Your task to perform on an android device: toggle notification dots Image 0: 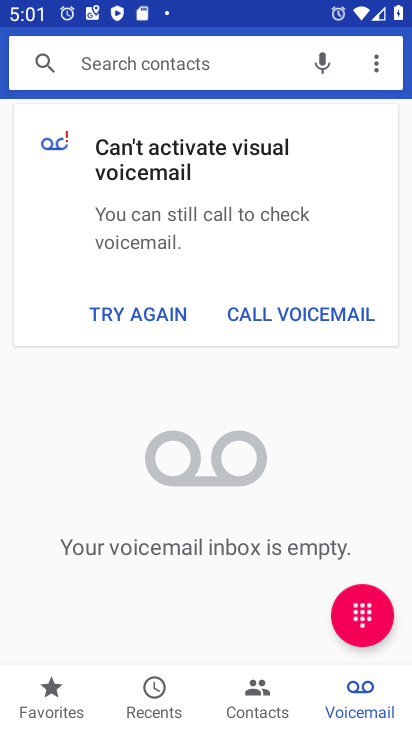
Step 0: press home button
Your task to perform on an android device: toggle notification dots Image 1: 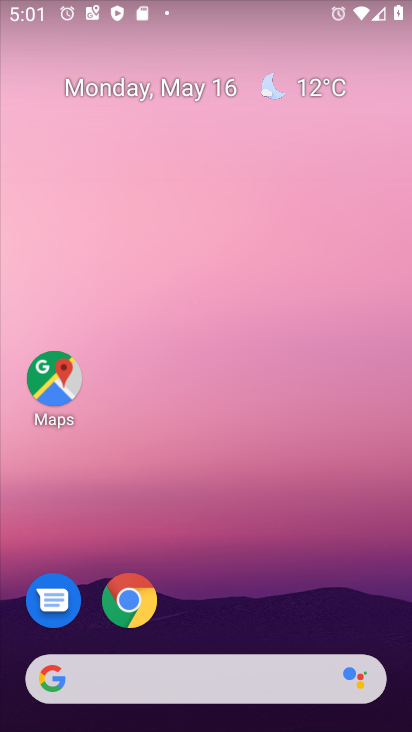
Step 1: click (280, 133)
Your task to perform on an android device: toggle notification dots Image 2: 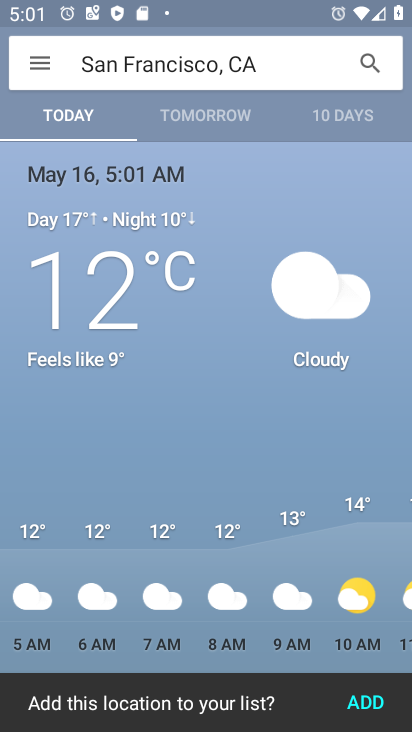
Step 2: press home button
Your task to perform on an android device: toggle notification dots Image 3: 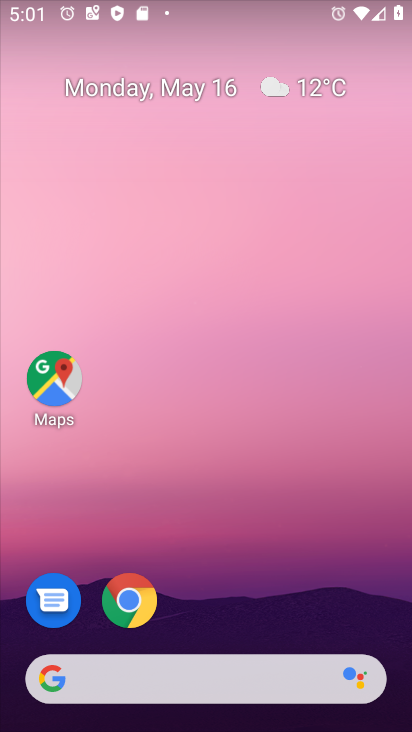
Step 3: drag from (150, 654) to (133, 63)
Your task to perform on an android device: toggle notification dots Image 4: 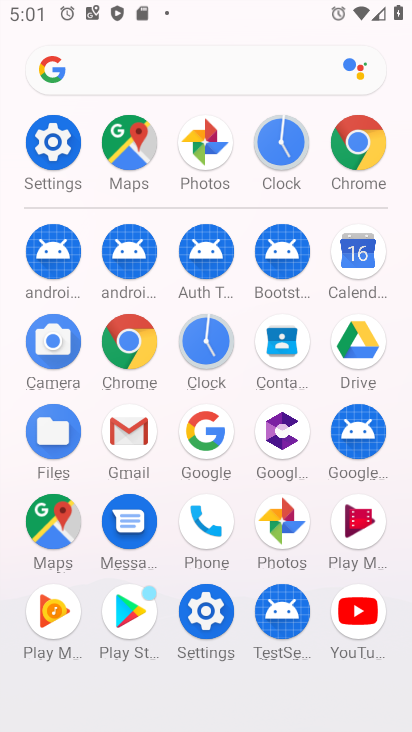
Step 4: click (49, 163)
Your task to perform on an android device: toggle notification dots Image 5: 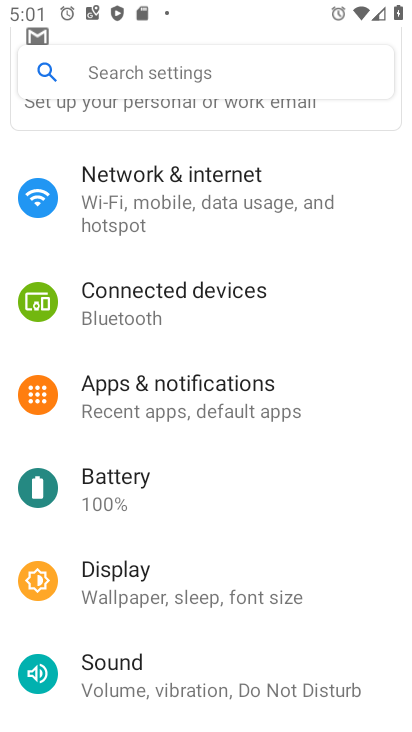
Step 5: click (189, 391)
Your task to perform on an android device: toggle notification dots Image 6: 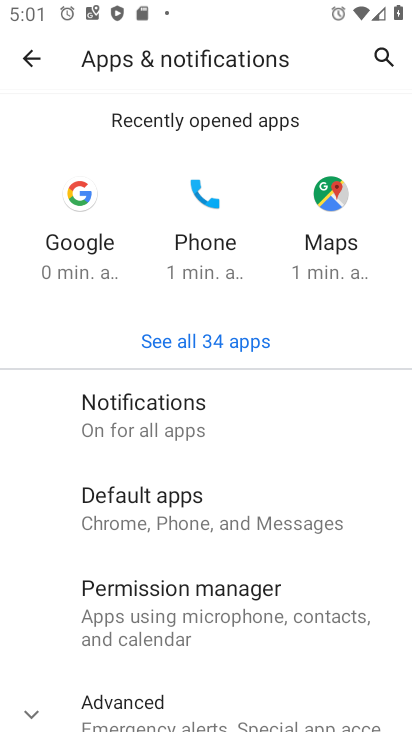
Step 6: click (166, 426)
Your task to perform on an android device: toggle notification dots Image 7: 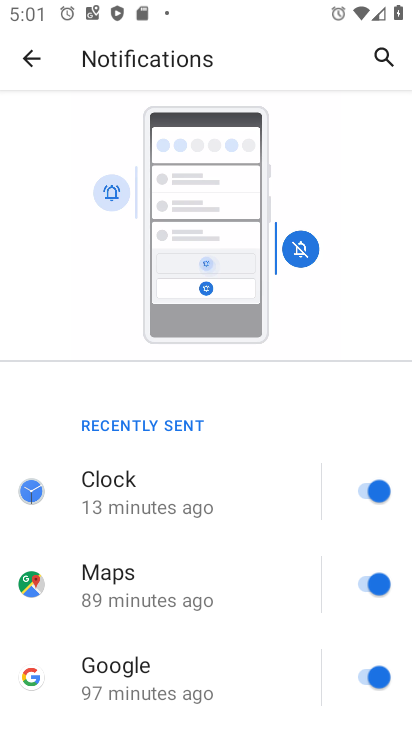
Step 7: drag from (188, 707) to (203, 220)
Your task to perform on an android device: toggle notification dots Image 8: 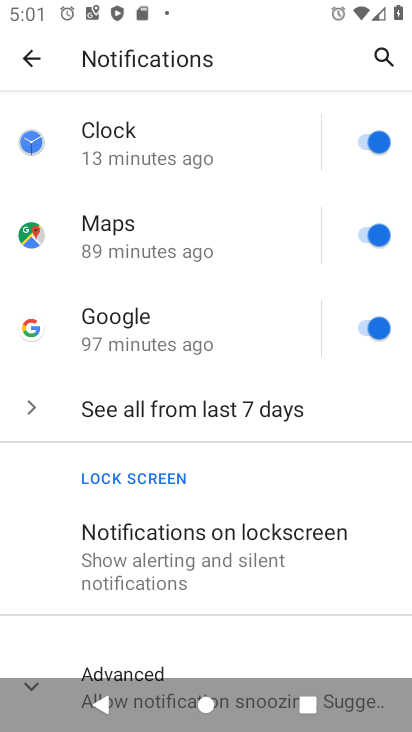
Step 8: drag from (208, 632) to (252, 272)
Your task to perform on an android device: toggle notification dots Image 9: 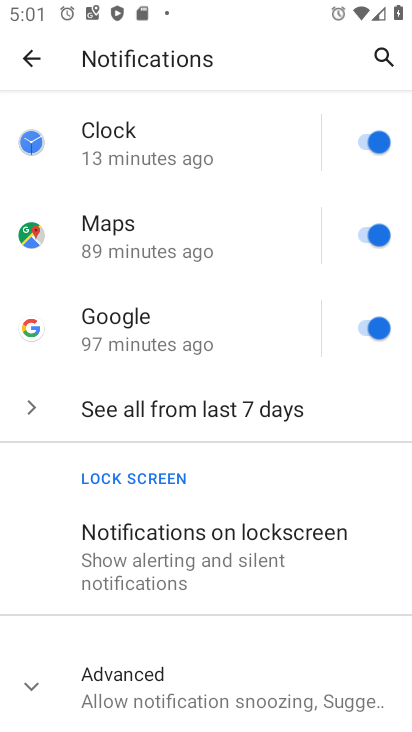
Step 9: click (131, 686)
Your task to perform on an android device: toggle notification dots Image 10: 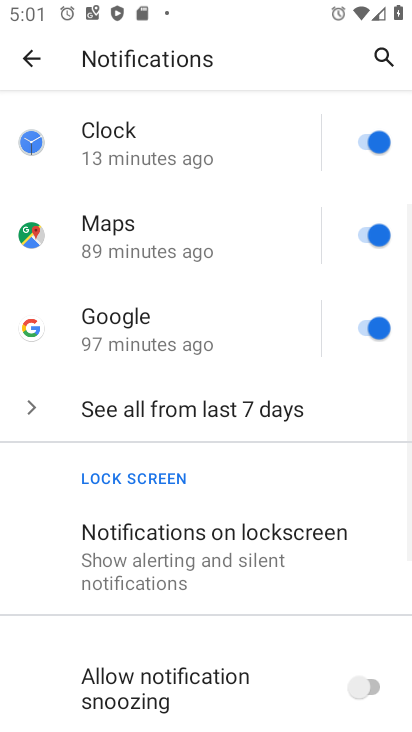
Step 10: drag from (131, 713) to (183, 327)
Your task to perform on an android device: toggle notification dots Image 11: 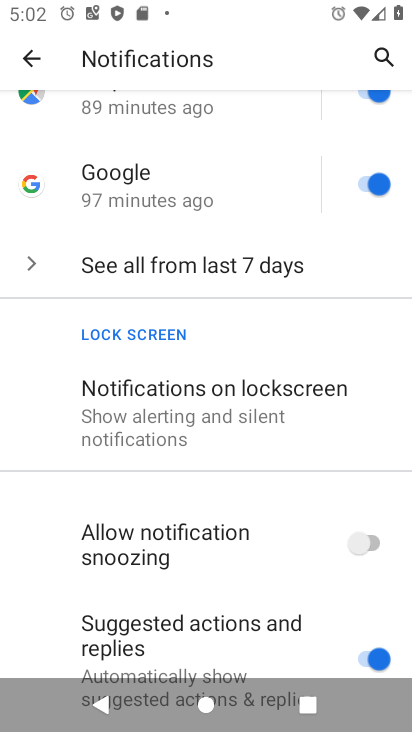
Step 11: drag from (206, 632) to (199, 252)
Your task to perform on an android device: toggle notification dots Image 12: 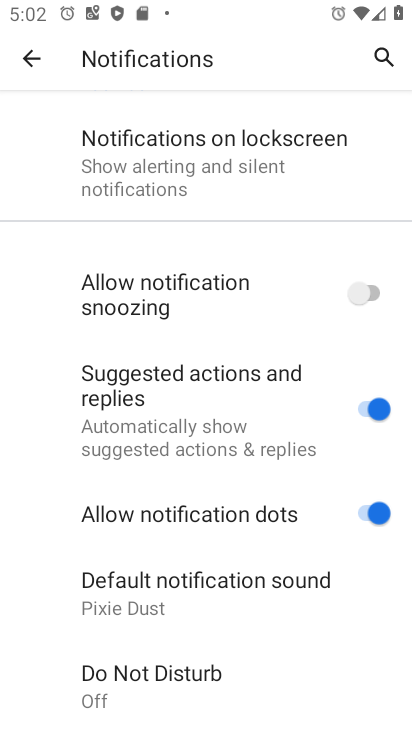
Step 12: click (357, 512)
Your task to perform on an android device: toggle notification dots Image 13: 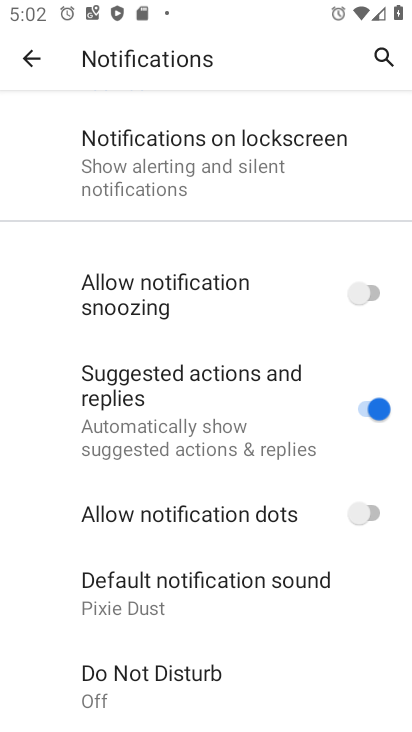
Step 13: task complete